Your task to perform on an android device: Search for Mexican restaurants on Maps Image 0: 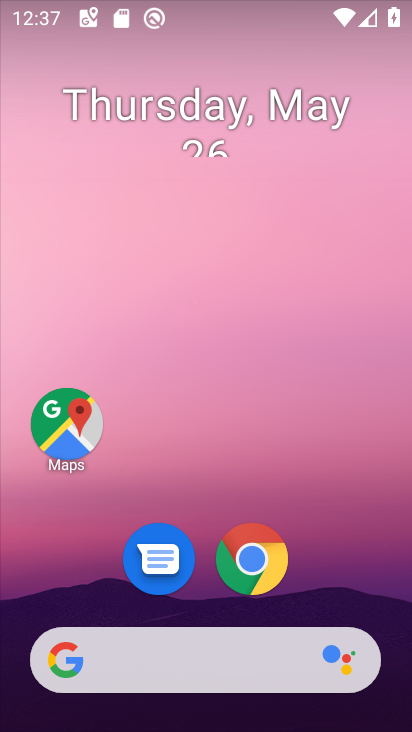
Step 0: press home button
Your task to perform on an android device: Search for Mexican restaurants on Maps Image 1: 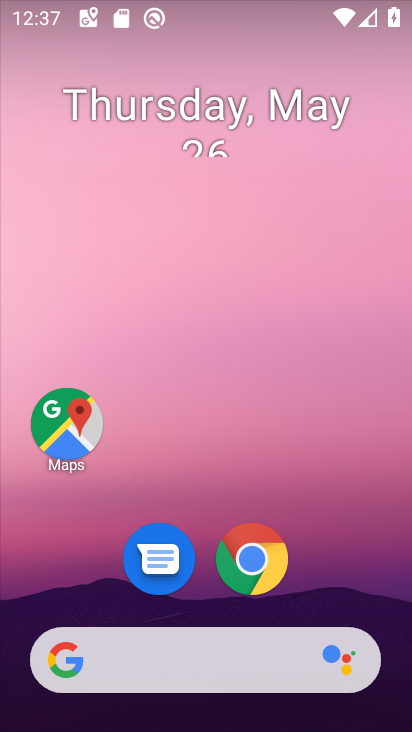
Step 1: click (69, 428)
Your task to perform on an android device: Search for Mexican restaurants on Maps Image 2: 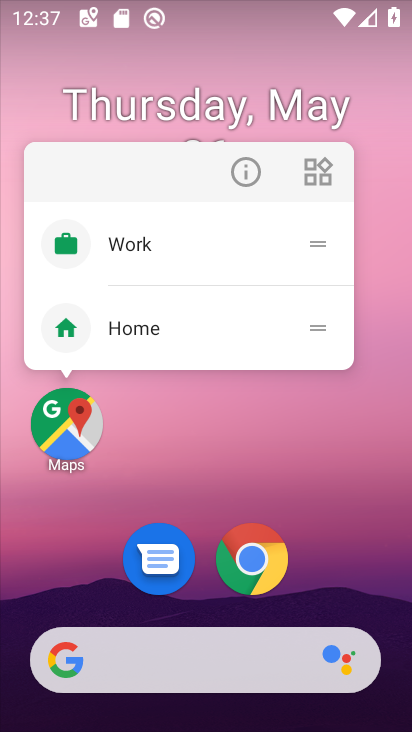
Step 2: click (69, 428)
Your task to perform on an android device: Search for Mexican restaurants on Maps Image 3: 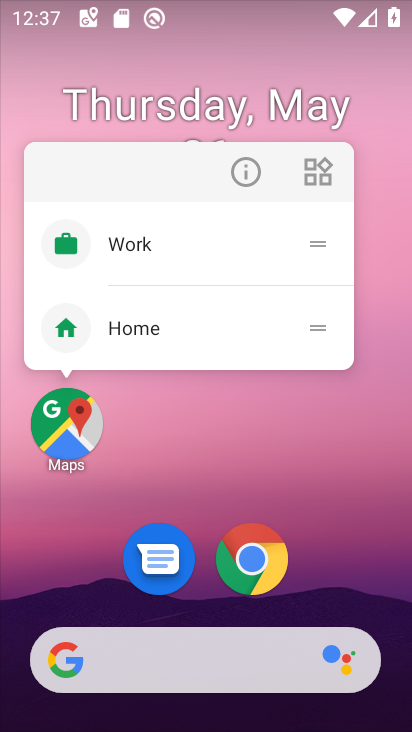
Step 3: click (69, 428)
Your task to perform on an android device: Search for Mexican restaurants on Maps Image 4: 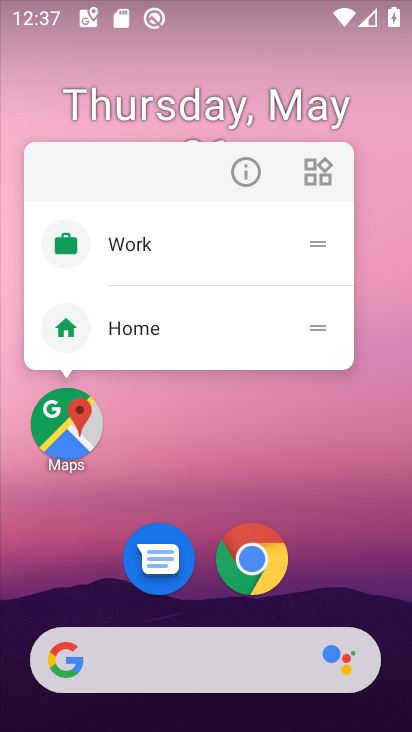
Step 4: click (66, 443)
Your task to perform on an android device: Search for Mexican restaurants on Maps Image 5: 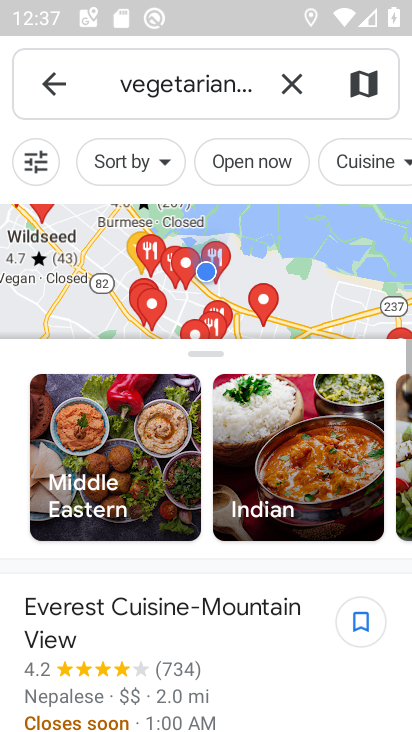
Step 5: click (300, 86)
Your task to perform on an android device: Search for Mexican restaurants on Maps Image 6: 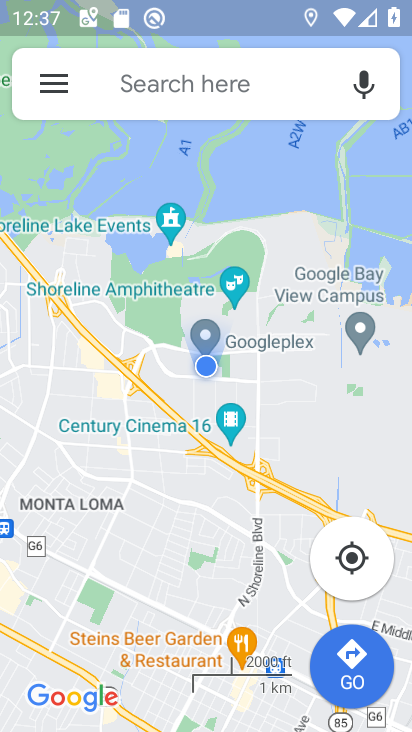
Step 6: click (220, 80)
Your task to perform on an android device: Search for Mexican restaurants on Maps Image 7: 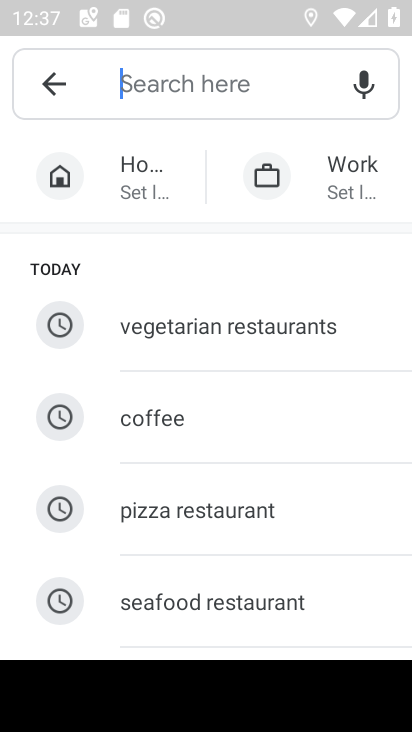
Step 7: type "Mexican restaurants"
Your task to perform on an android device: Search for Mexican restaurants on Maps Image 8: 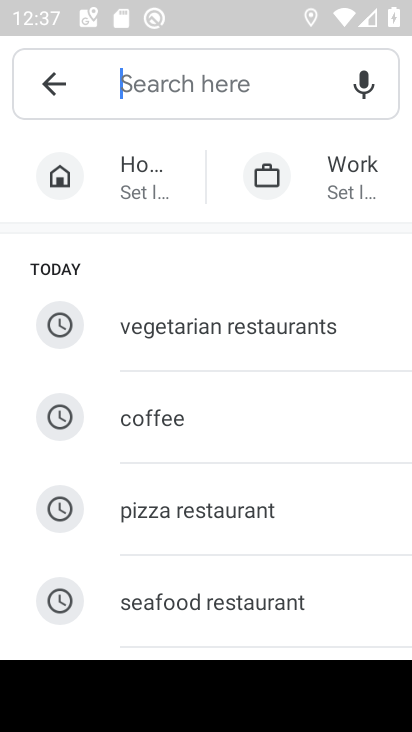
Step 8: click (203, 95)
Your task to perform on an android device: Search for Mexican restaurants on Maps Image 9: 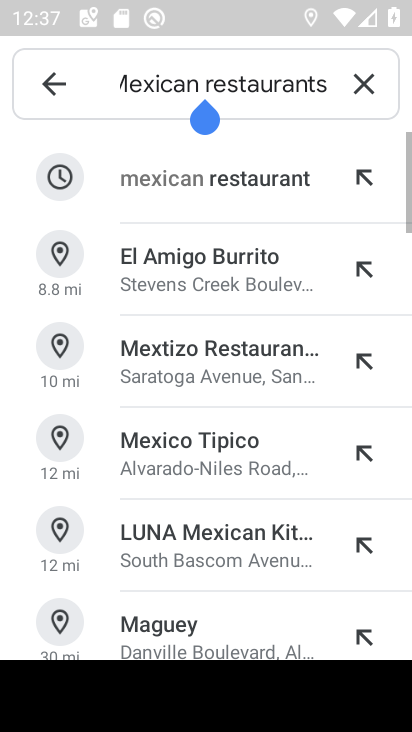
Step 9: click (195, 183)
Your task to perform on an android device: Search for Mexican restaurants on Maps Image 10: 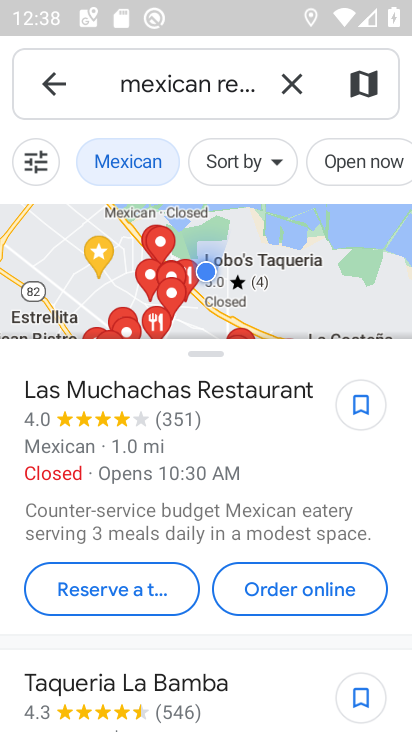
Step 10: task complete